Your task to perform on an android device: Open Youtube and go to the subscriptions tab Image 0: 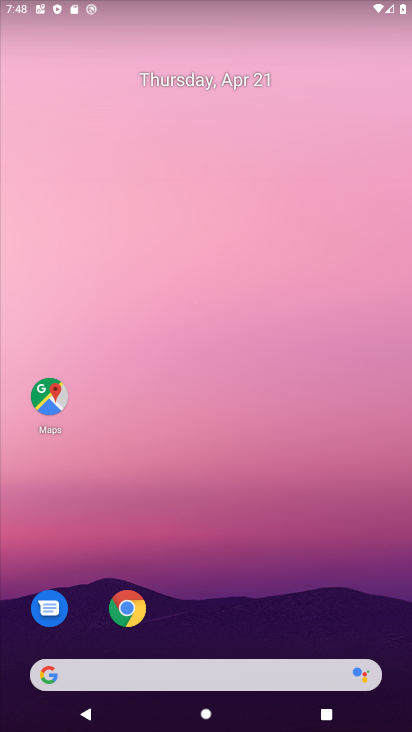
Step 0: drag from (251, 564) to (269, 321)
Your task to perform on an android device: Open Youtube and go to the subscriptions tab Image 1: 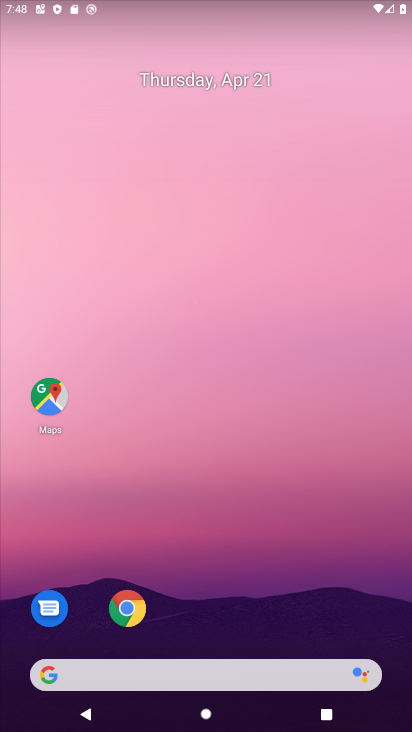
Step 1: drag from (193, 644) to (297, 158)
Your task to perform on an android device: Open Youtube and go to the subscriptions tab Image 2: 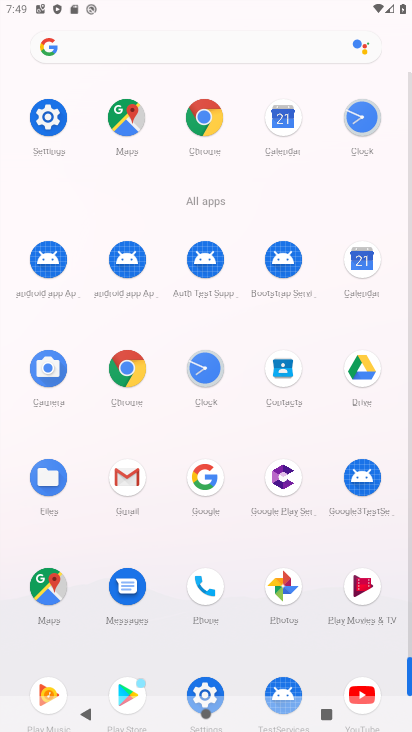
Step 2: drag from (341, 663) to (341, 456)
Your task to perform on an android device: Open Youtube and go to the subscriptions tab Image 3: 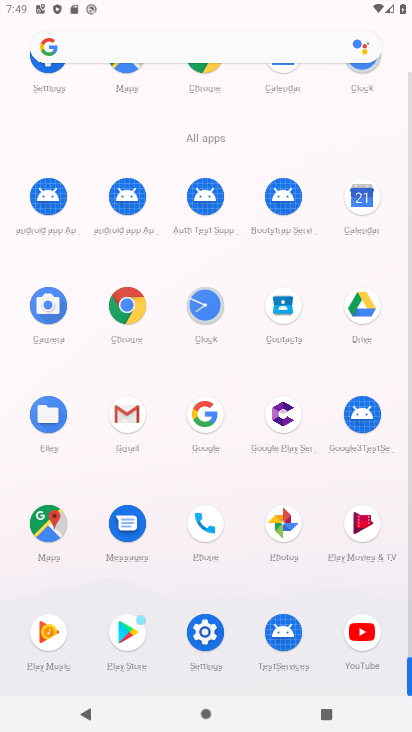
Step 3: click (358, 629)
Your task to perform on an android device: Open Youtube and go to the subscriptions tab Image 4: 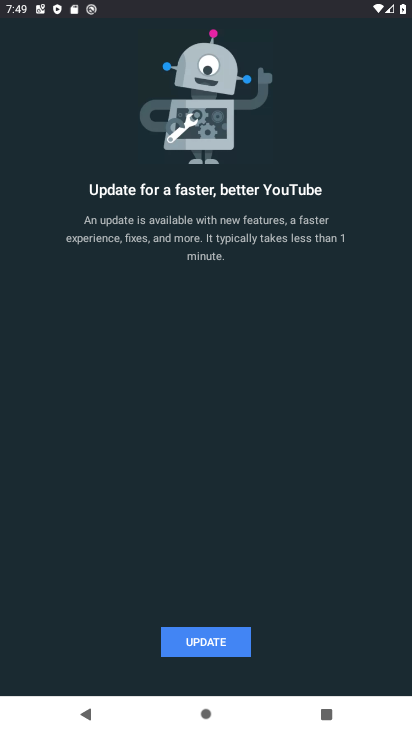
Step 4: click (253, 637)
Your task to perform on an android device: Open Youtube and go to the subscriptions tab Image 5: 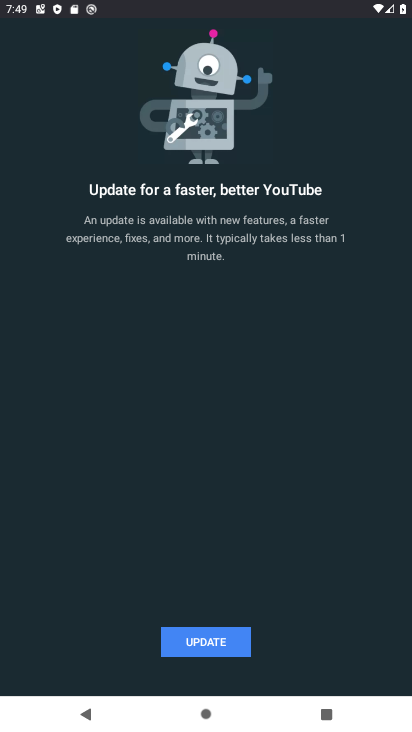
Step 5: click (209, 643)
Your task to perform on an android device: Open Youtube and go to the subscriptions tab Image 6: 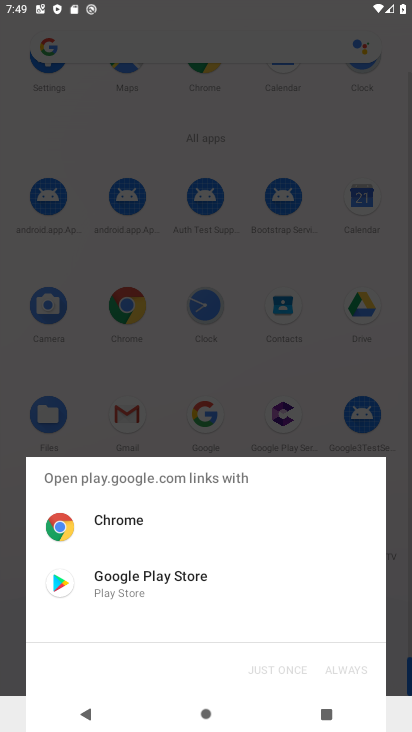
Step 6: click (154, 578)
Your task to perform on an android device: Open Youtube and go to the subscriptions tab Image 7: 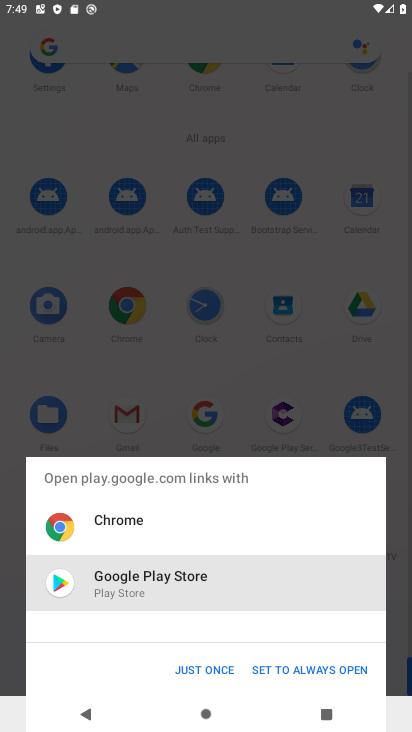
Step 7: click (187, 671)
Your task to perform on an android device: Open Youtube and go to the subscriptions tab Image 8: 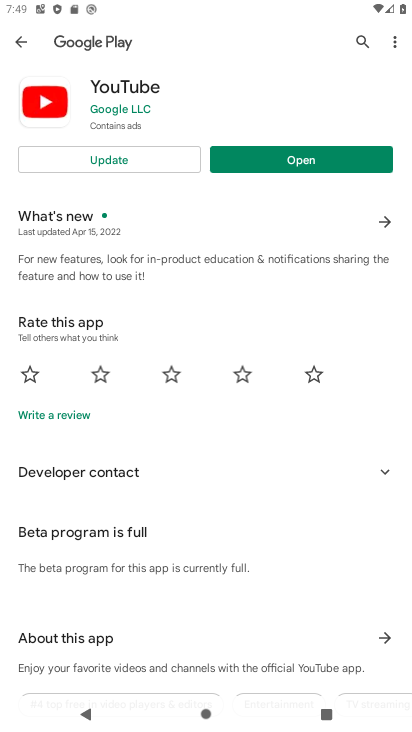
Step 8: click (138, 168)
Your task to perform on an android device: Open Youtube and go to the subscriptions tab Image 9: 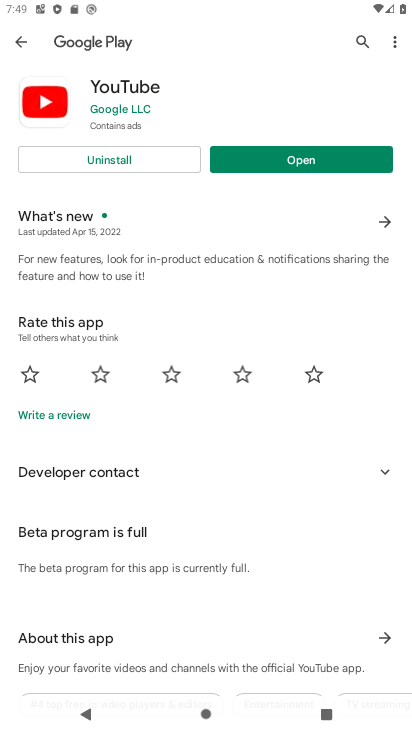
Step 9: click (316, 163)
Your task to perform on an android device: Open Youtube and go to the subscriptions tab Image 10: 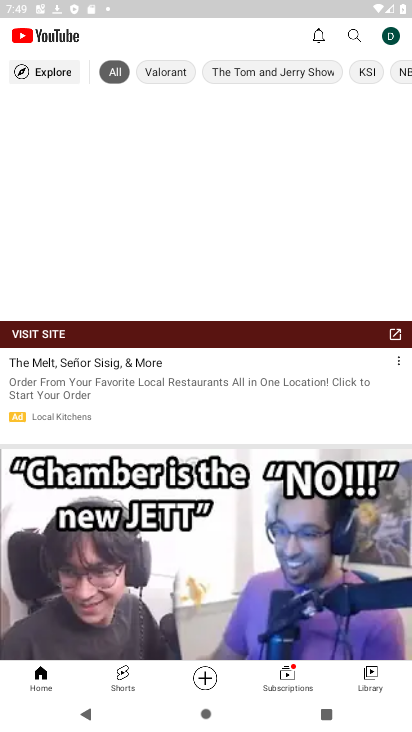
Step 10: click (294, 667)
Your task to perform on an android device: Open Youtube and go to the subscriptions tab Image 11: 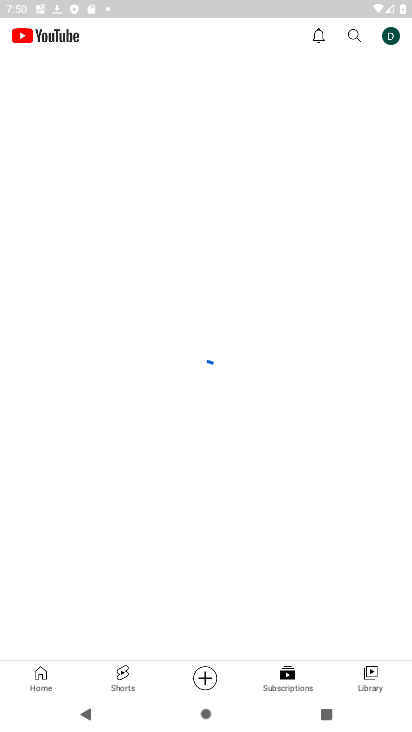
Step 11: task complete